Your task to perform on an android device: Go to sound settings Image 0: 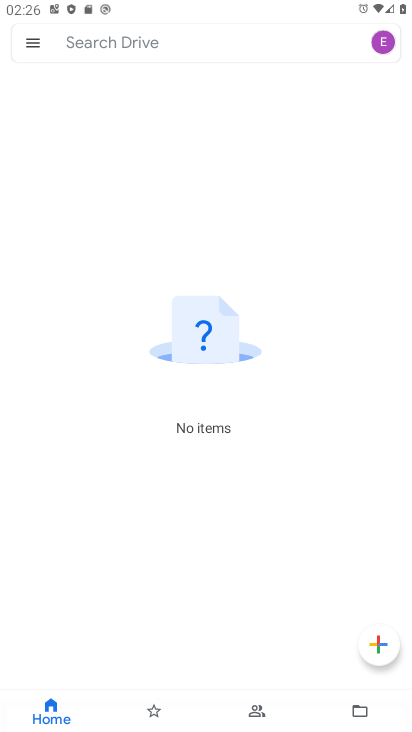
Step 0: drag from (197, 547) to (206, 284)
Your task to perform on an android device: Go to sound settings Image 1: 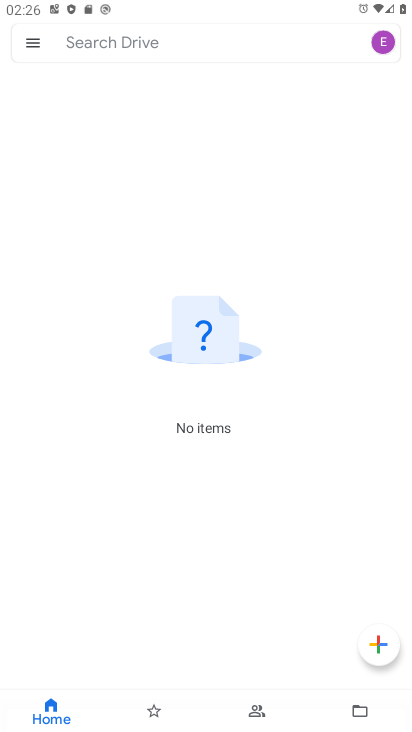
Step 1: press home button
Your task to perform on an android device: Go to sound settings Image 2: 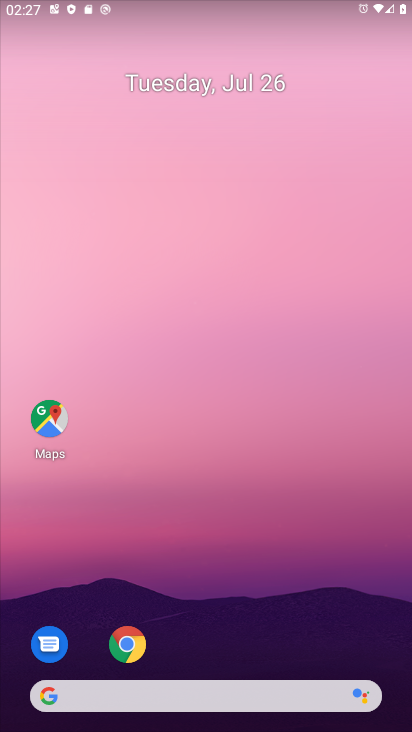
Step 2: drag from (238, 644) to (257, 120)
Your task to perform on an android device: Go to sound settings Image 3: 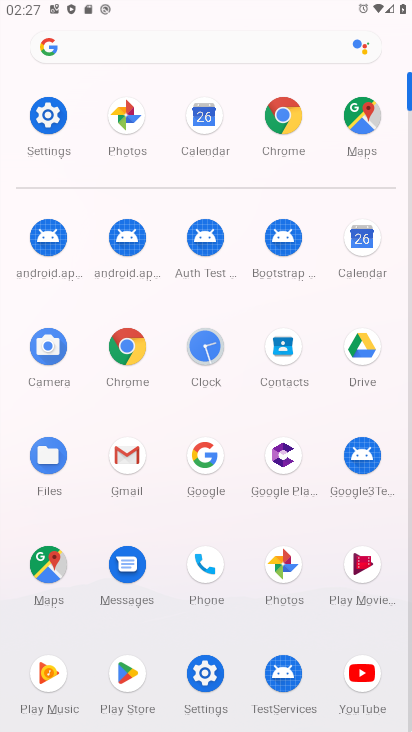
Step 3: click (40, 102)
Your task to perform on an android device: Go to sound settings Image 4: 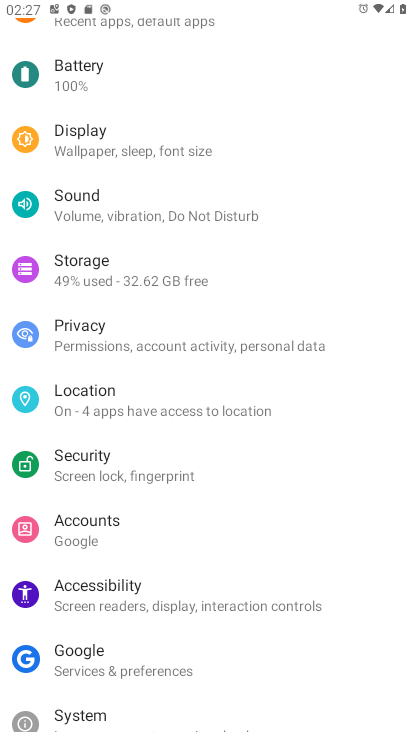
Step 4: click (101, 190)
Your task to perform on an android device: Go to sound settings Image 5: 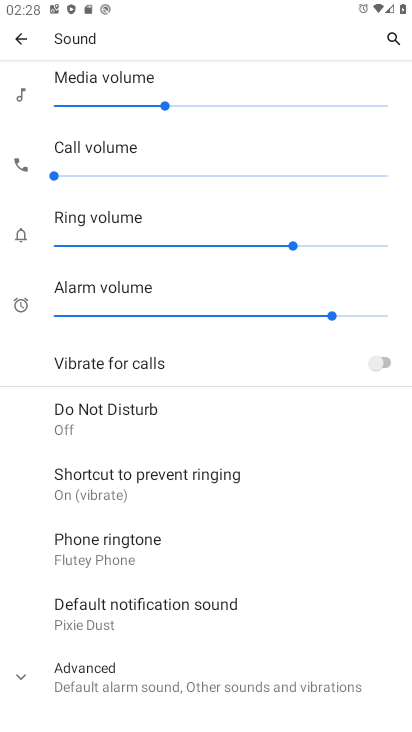
Step 5: task complete